Your task to perform on an android device: open chrome privacy settings Image 0: 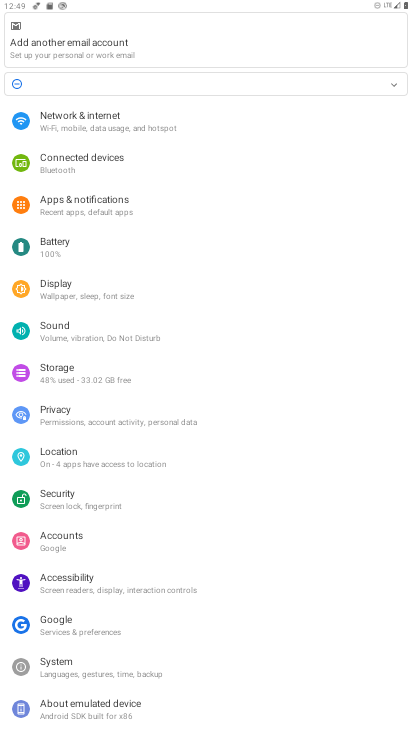
Step 0: click (67, 412)
Your task to perform on an android device: open chrome privacy settings Image 1: 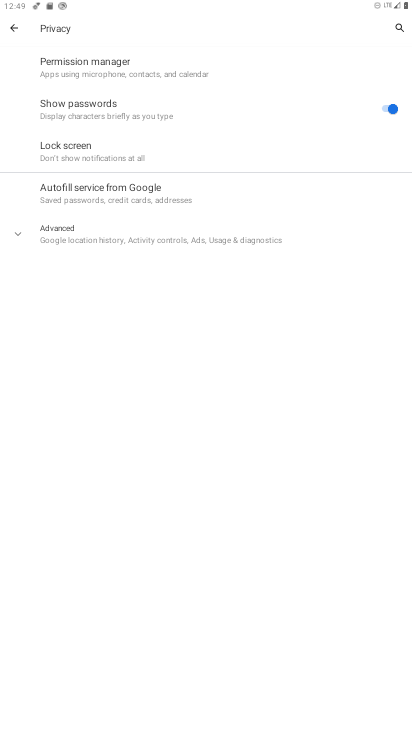
Step 1: task complete